Your task to perform on an android device: set the stopwatch Image 0: 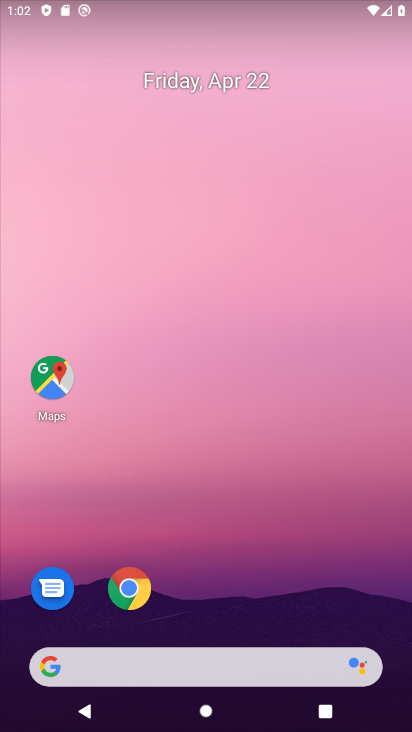
Step 0: drag from (405, 575) to (364, 97)
Your task to perform on an android device: set the stopwatch Image 1: 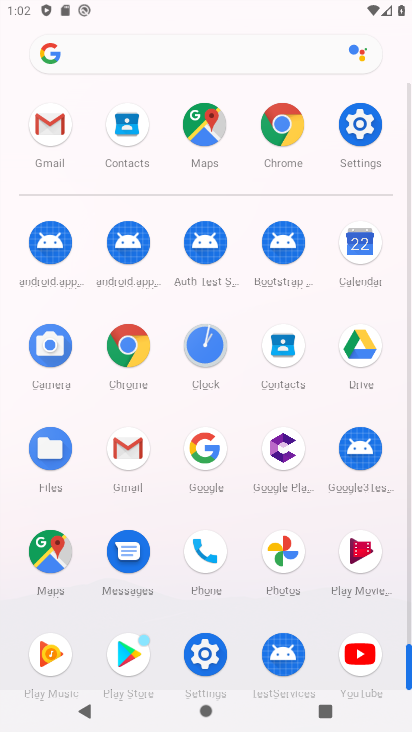
Step 1: click (210, 342)
Your task to perform on an android device: set the stopwatch Image 2: 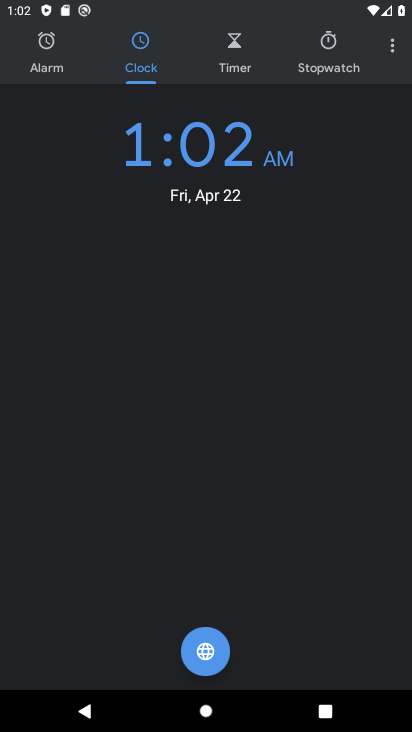
Step 2: click (316, 57)
Your task to perform on an android device: set the stopwatch Image 3: 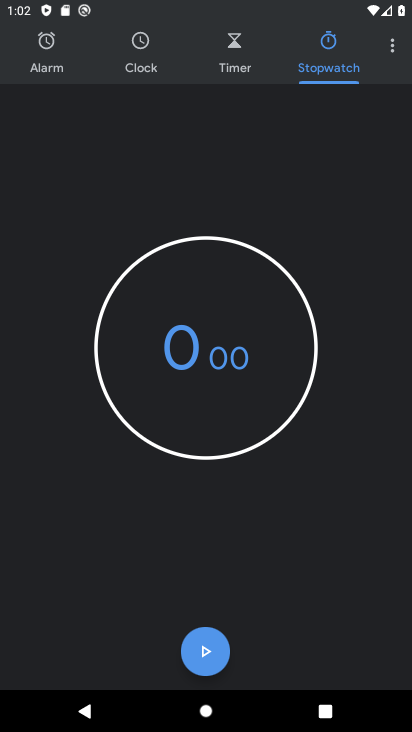
Step 3: click (202, 648)
Your task to perform on an android device: set the stopwatch Image 4: 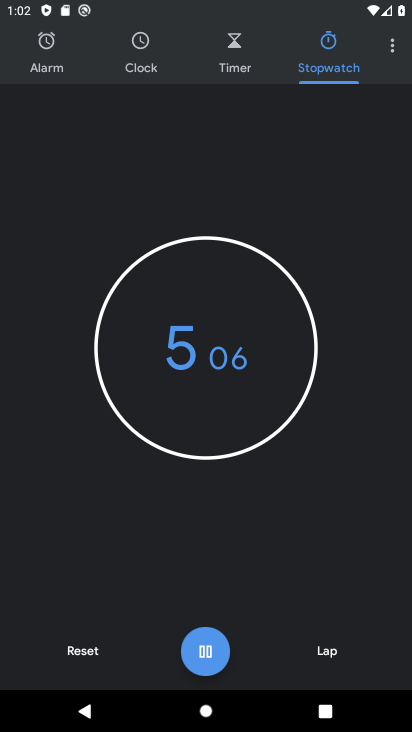
Step 4: click (195, 649)
Your task to perform on an android device: set the stopwatch Image 5: 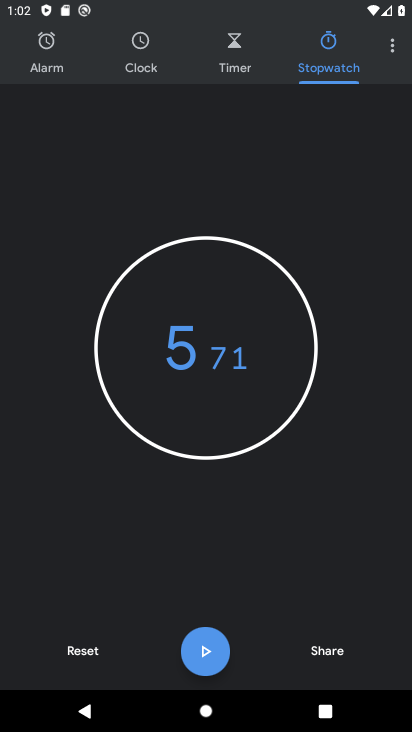
Step 5: task complete